Your task to perform on an android device: delete a single message in the gmail app Image 0: 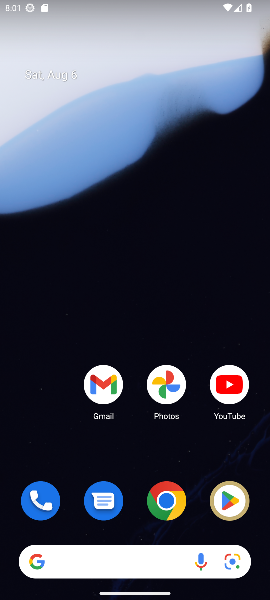
Step 0: drag from (10, 560) to (175, 170)
Your task to perform on an android device: delete a single message in the gmail app Image 1: 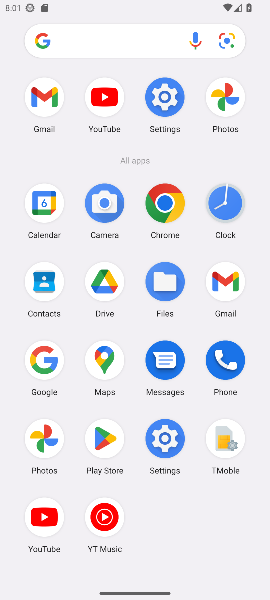
Step 1: click (228, 282)
Your task to perform on an android device: delete a single message in the gmail app Image 2: 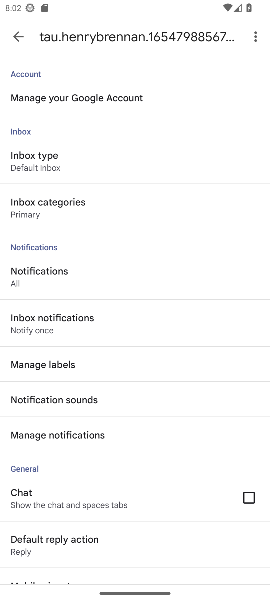
Step 2: click (17, 39)
Your task to perform on an android device: delete a single message in the gmail app Image 3: 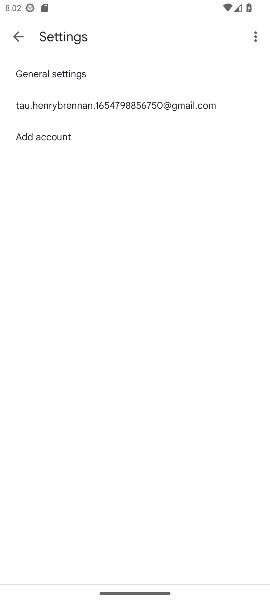
Step 3: click (17, 39)
Your task to perform on an android device: delete a single message in the gmail app Image 4: 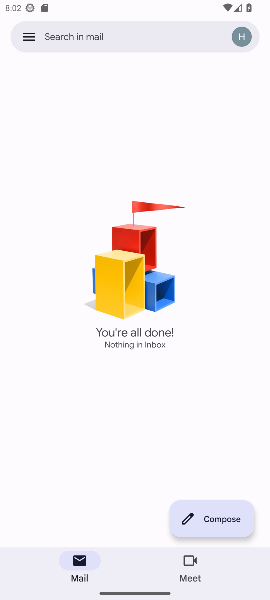
Step 4: click (30, 39)
Your task to perform on an android device: delete a single message in the gmail app Image 5: 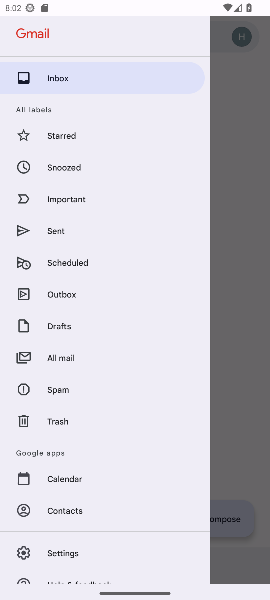
Step 5: click (64, 68)
Your task to perform on an android device: delete a single message in the gmail app Image 6: 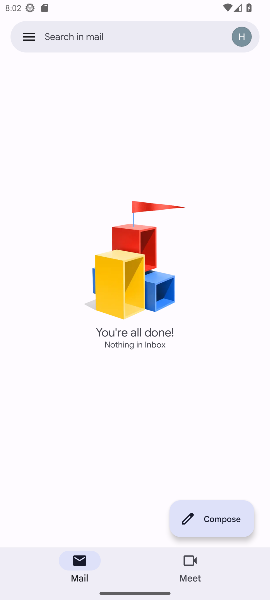
Step 6: task complete